Your task to perform on an android device: open a bookmark in the chrome app Image 0: 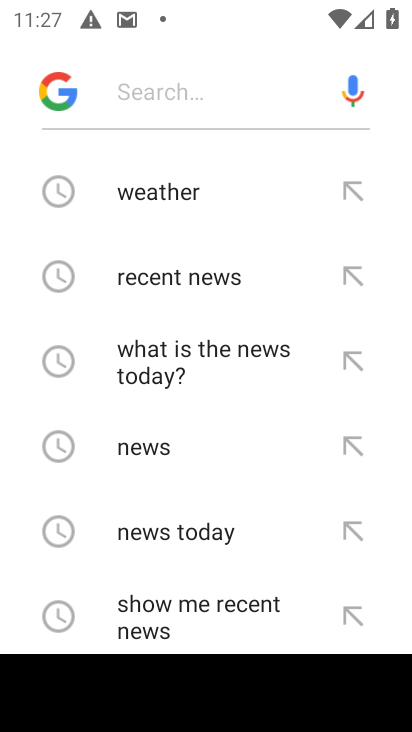
Step 0: press home button
Your task to perform on an android device: open a bookmark in the chrome app Image 1: 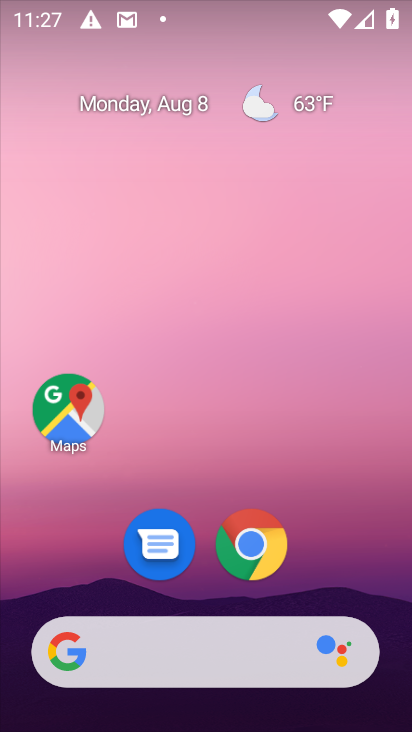
Step 1: click (250, 542)
Your task to perform on an android device: open a bookmark in the chrome app Image 2: 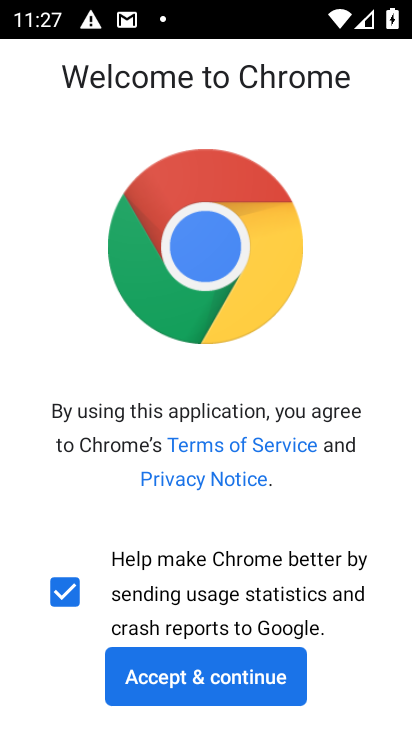
Step 2: click (203, 675)
Your task to perform on an android device: open a bookmark in the chrome app Image 3: 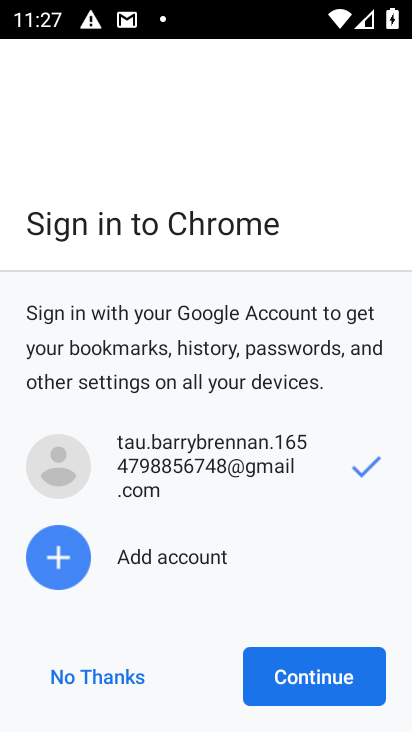
Step 3: click (292, 673)
Your task to perform on an android device: open a bookmark in the chrome app Image 4: 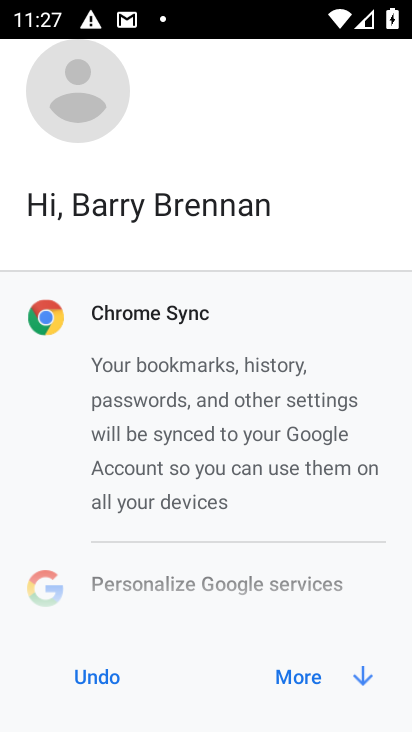
Step 4: click (302, 675)
Your task to perform on an android device: open a bookmark in the chrome app Image 5: 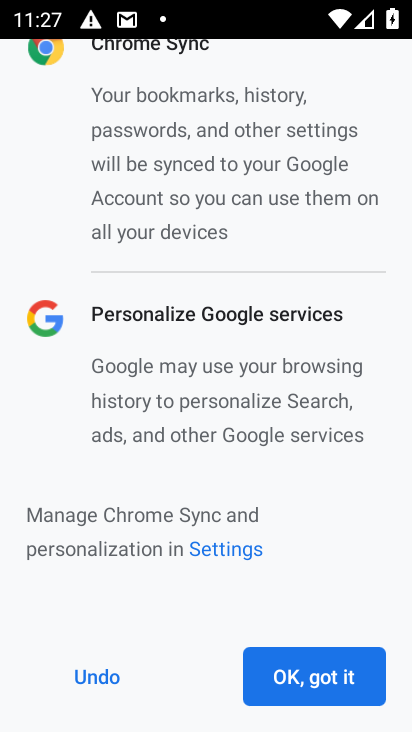
Step 5: click (302, 675)
Your task to perform on an android device: open a bookmark in the chrome app Image 6: 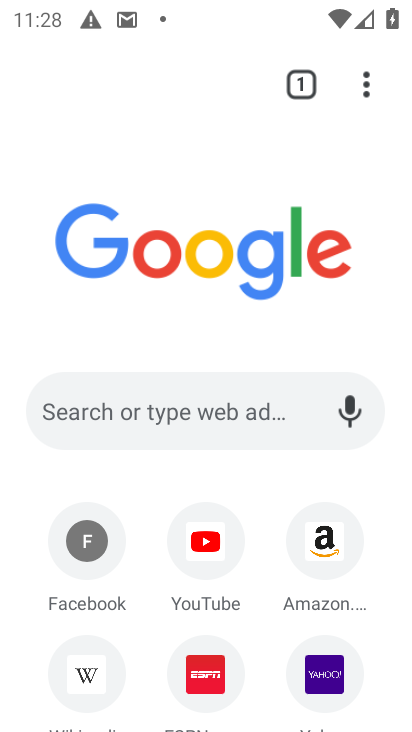
Step 6: click (366, 86)
Your task to perform on an android device: open a bookmark in the chrome app Image 7: 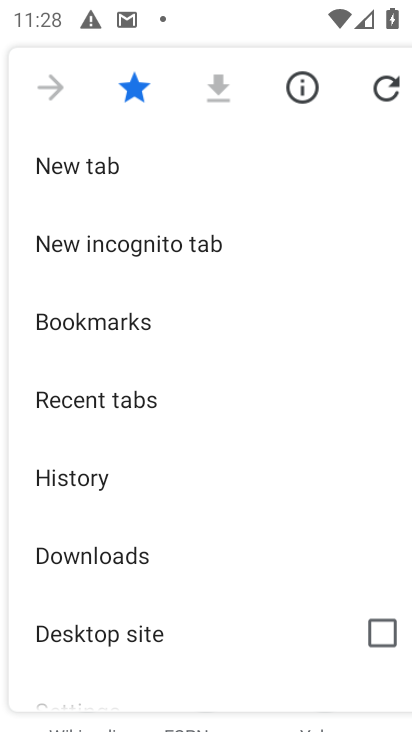
Step 7: click (123, 318)
Your task to perform on an android device: open a bookmark in the chrome app Image 8: 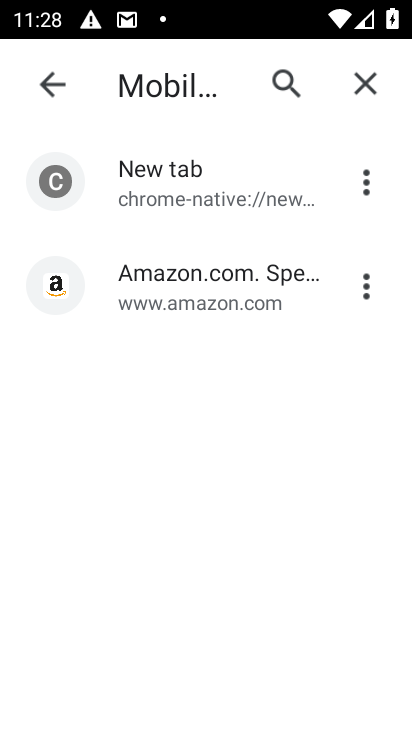
Step 8: task complete